Your task to perform on an android device: Go to notification settings Image 0: 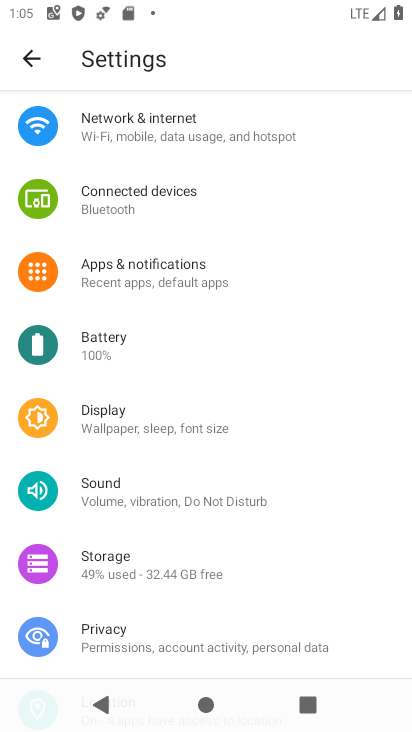
Step 0: click (195, 284)
Your task to perform on an android device: Go to notification settings Image 1: 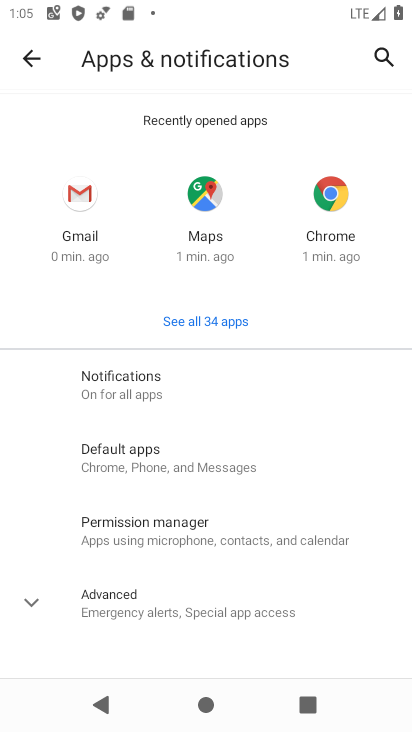
Step 1: task complete